Your task to perform on an android device: toggle airplane mode Image 0: 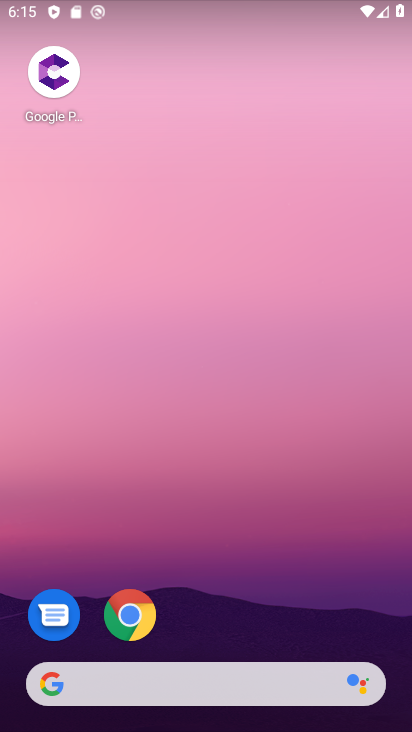
Step 0: drag from (244, 6) to (171, 655)
Your task to perform on an android device: toggle airplane mode Image 1: 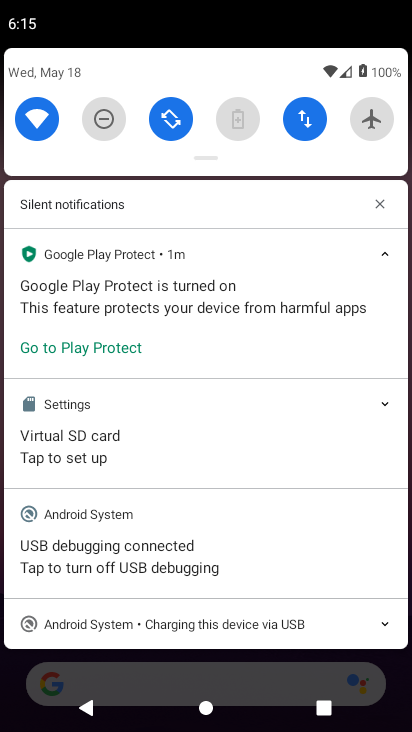
Step 1: drag from (230, 157) to (191, 628)
Your task to perform on an android device: toggle airplane mode Image 2: 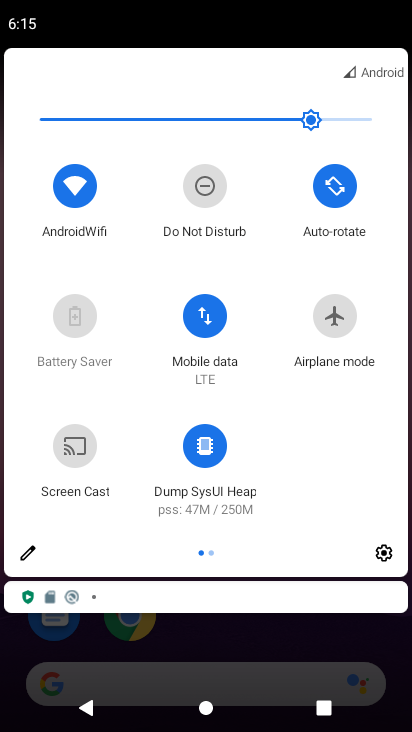
Step 2: click (341, 308)
Your task to perform on an android device: toggle airplane mode Image 3: 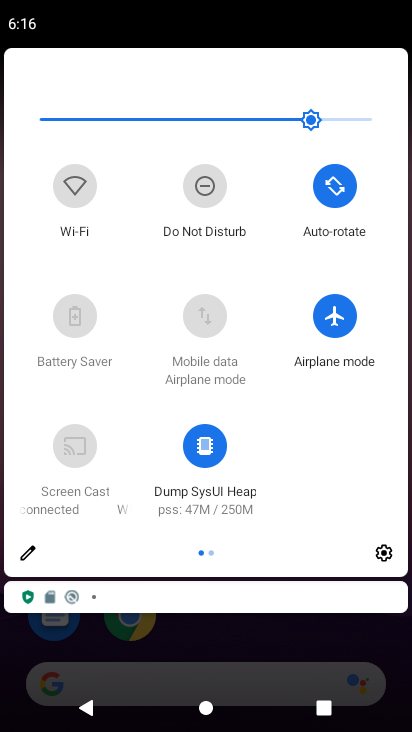
Step 3: task complete